Your task to perform on an android device: open app "Fetch Rewards" (install if not already installed) Image 0: 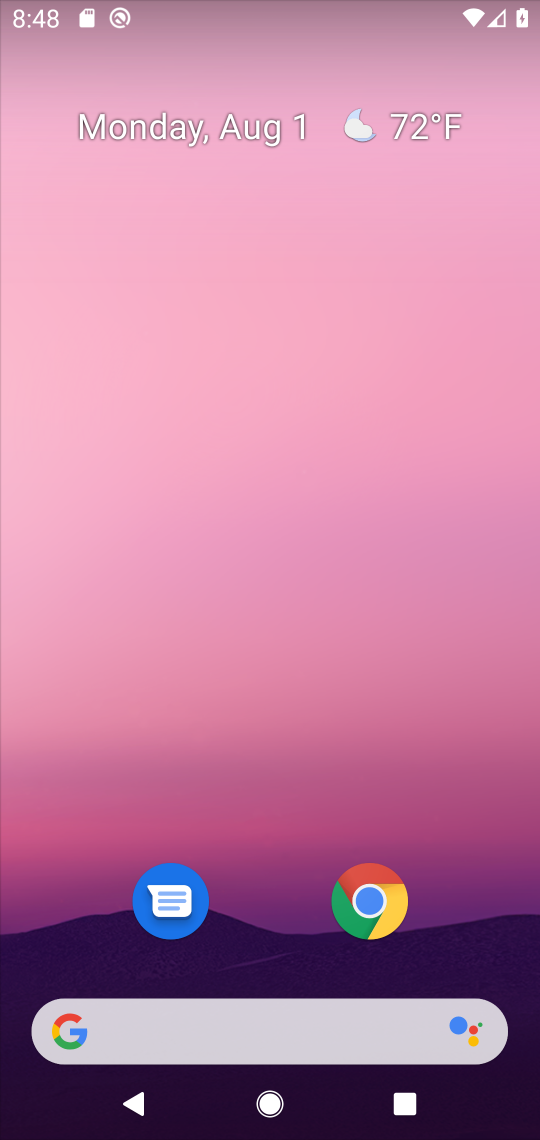
Step 0: drag from (281, 911) to (336, 8)
Your task to perform on an android device: open app "Fetch Rewards" (install if not already installed) Image 1: 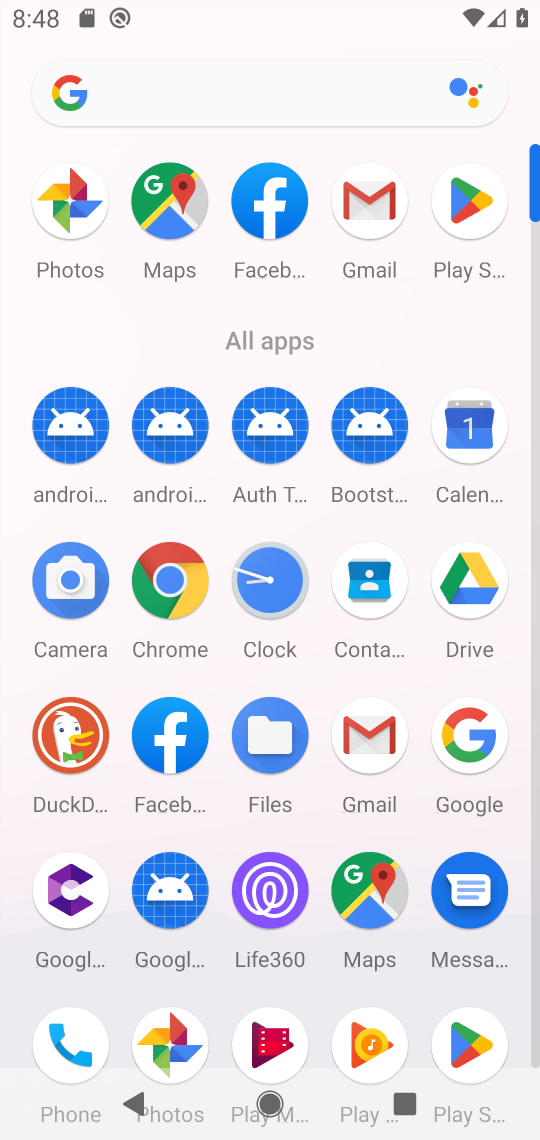
Step 1: click (472, 195)
Your task to perform on an android device: open app "Fetch Rewards" (install if not already installed) Image 2: 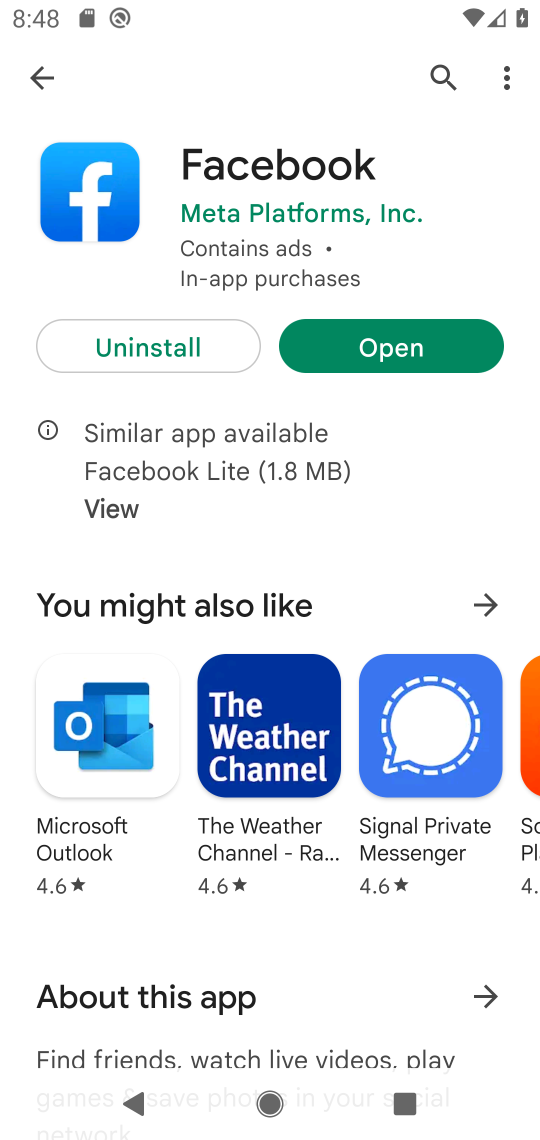
Step 2: click (440, 81)
Your task to perform on an android device: open app "Fetch Rewards" (install if not already installed) Image 3: 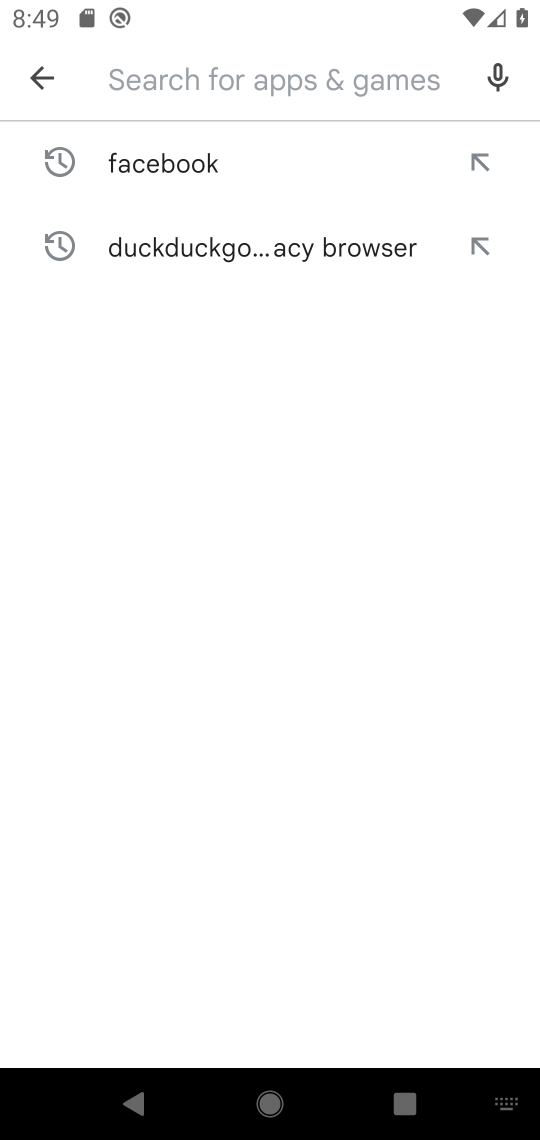
Step 3: type "fetch rewards"
Your task to perform on an android device: open app "Fetch Rewards" (install if not already installed) Image 4: 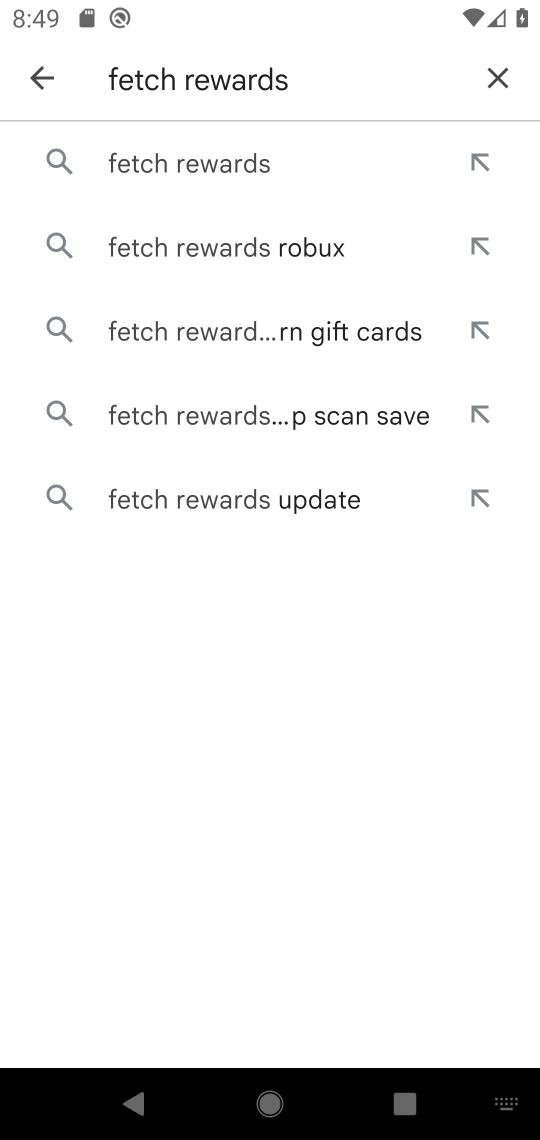
Step 4: click (237, 165)
Your task to perform on an android device: open app "Fetch Rewards" (install if not already installed) Image 5: 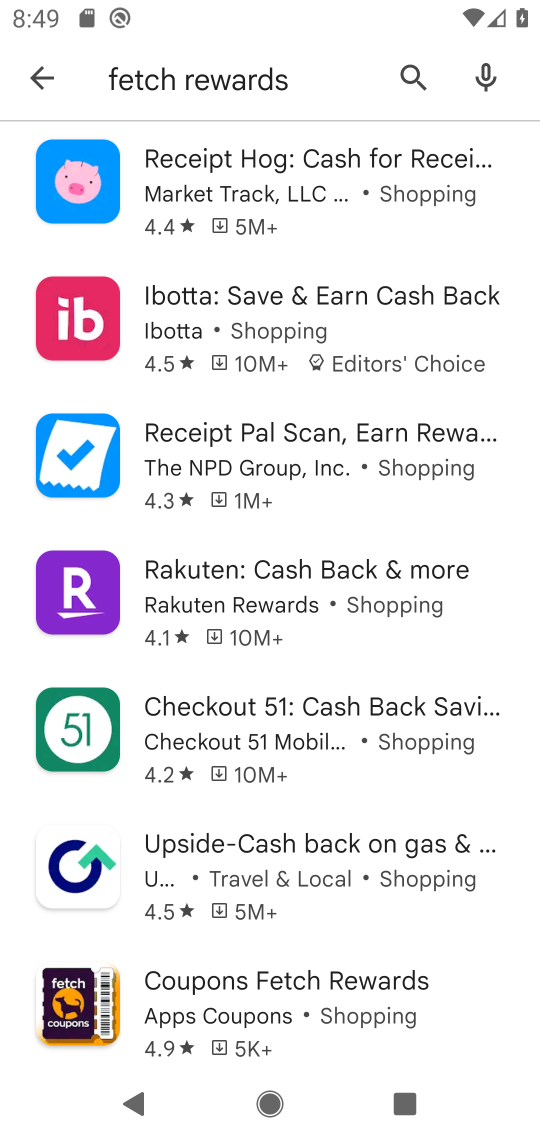
Step 5: task complete